Your task to perform on an android device: Go to Google maps Image 0: 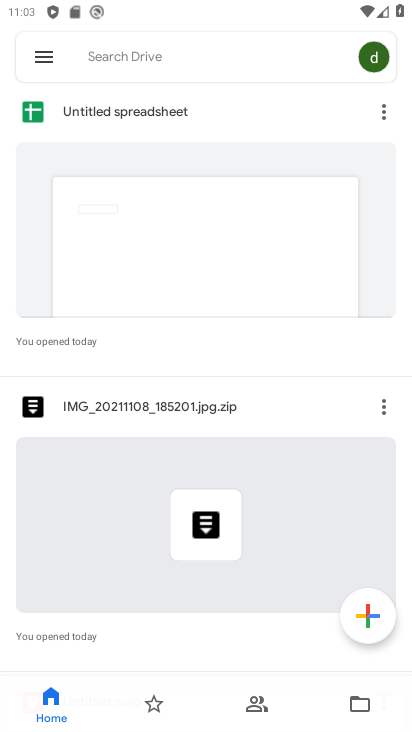
Step 0: press home button
Your task to perform on an android device: Go to Google maps Image 1: 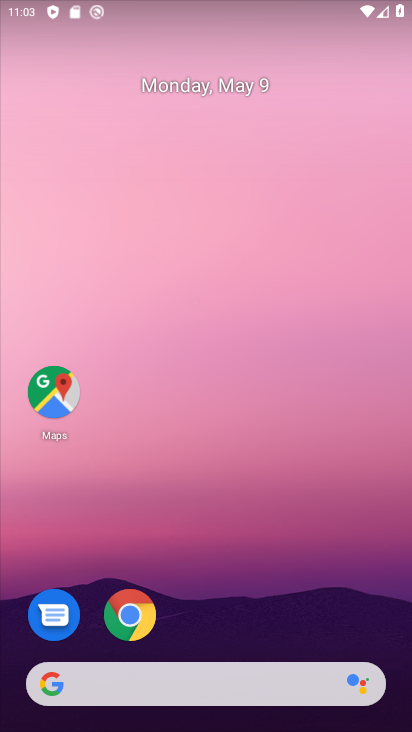
Step 1: drag from (215, 731) to (215, 248)
Your task to perform on an android device: Go to Google maps Image 2: 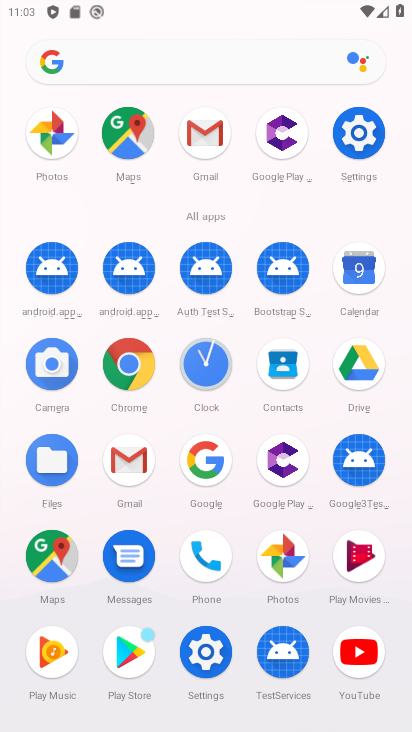
Step 2: click (37, 548)
Your task to perform on an android device: Go to Google maps Image 3: 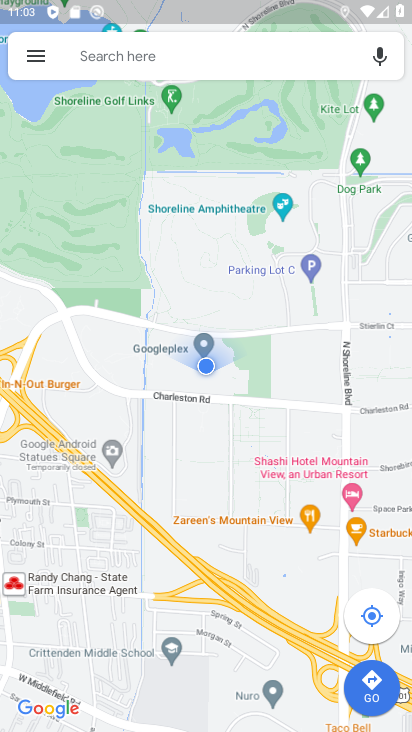
Step 3: task complete